Your task to perform on an android device: open chrome and create a bookmark for the current page Image 0: 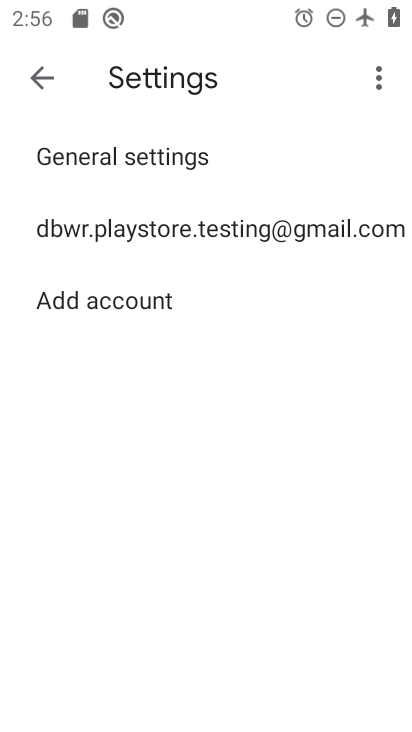
Step 0: press home button
Your task to perform on an android device: open chrome and create a bookmark for the current page Image 1: 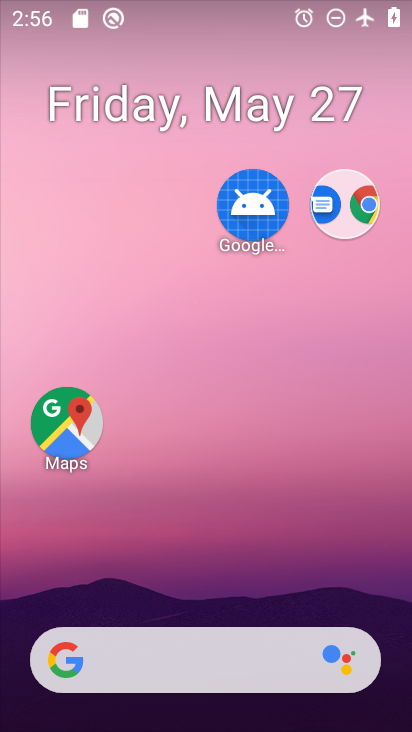
Step 1: drag from (321, 554) to (324, 157)
Your task to perform on an android device: open chrome and create a bookmark for the current page Image 2: 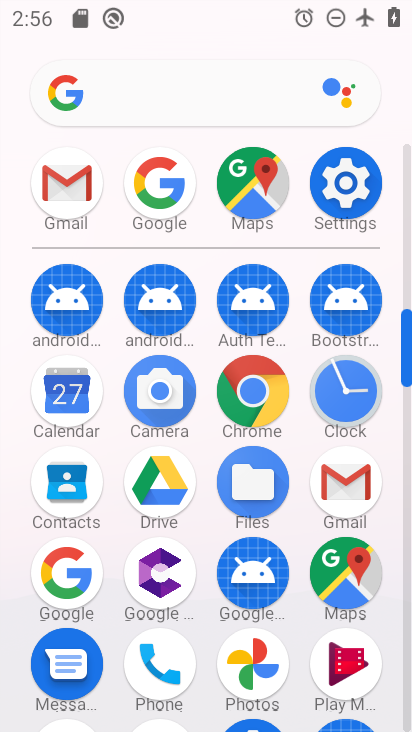
Step 2: click (261, 402)
Your task to perform on an android device: open chrome and create a bookmark for the current page Image 3: 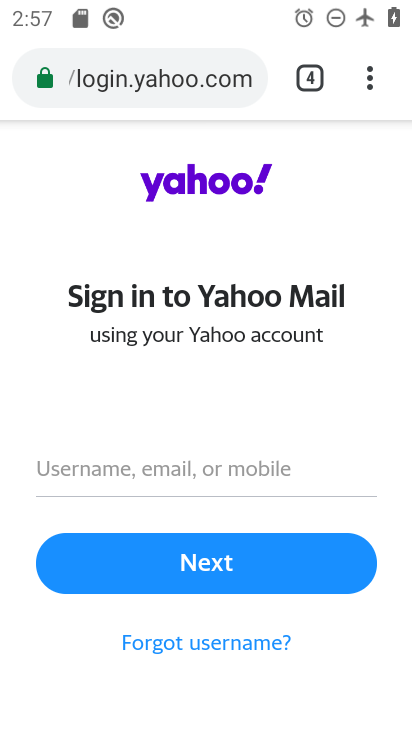
Step 3: click (365, 79)
Your task to perform on an android device: open chrome and create a bookmark for the current page Image 4: 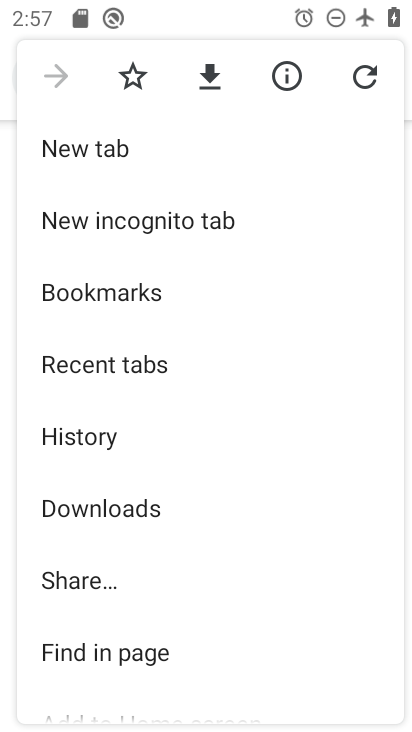
Step 4: click (126, 83)
Your task to perform on an android device: open chrome and create a bookmark for the current page Image 5: 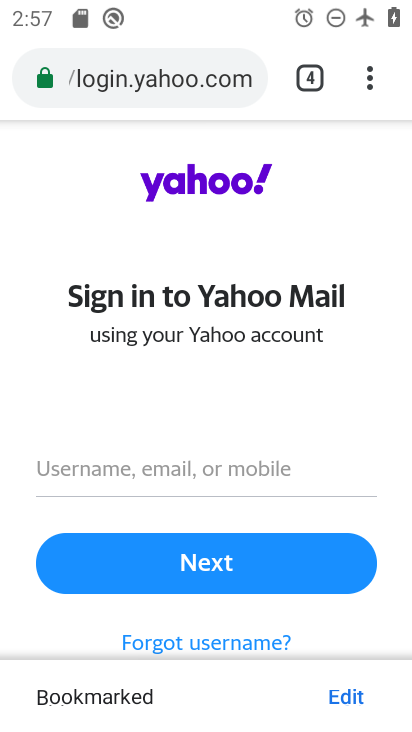
Step 5: task complete